Your task to perform on an android device: clear history in the chrome app Image 0: 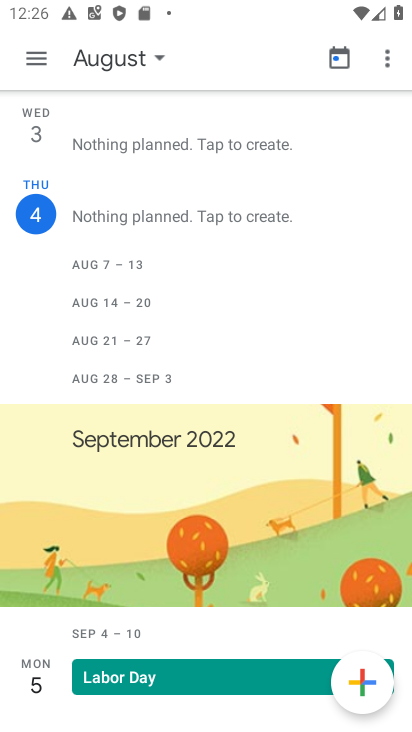
Step 0: press home button
Your task to perform on an android device: clear history in the chrome app Image 1: 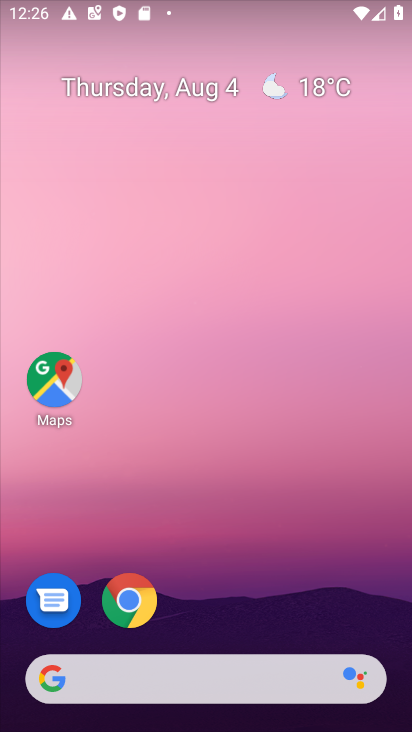
Step 1: click (130, 590)
Your task to perform on an android device: clear history in the chrome app Image 2: 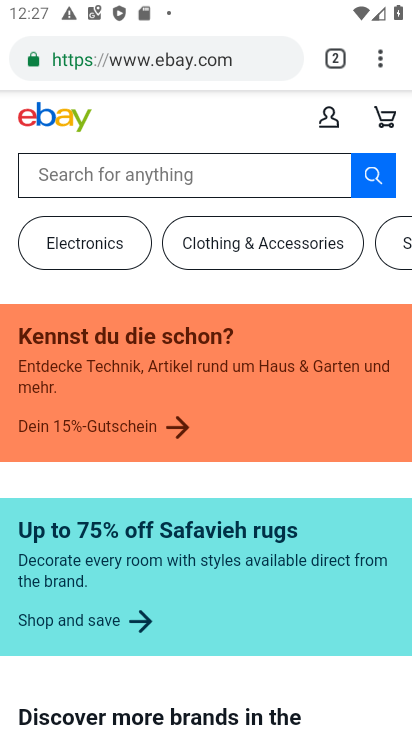
Step 2: drag from (383, 58) to (241, 407)
Your task to perform on an android device: clear history in the chrome app Image 3: 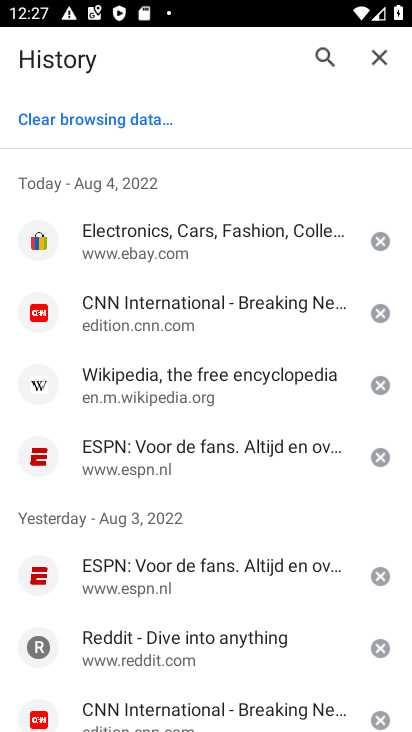
Step 3: click (101, 115)
Your task to perform on an android device: clear history in the chrome app Image 4: 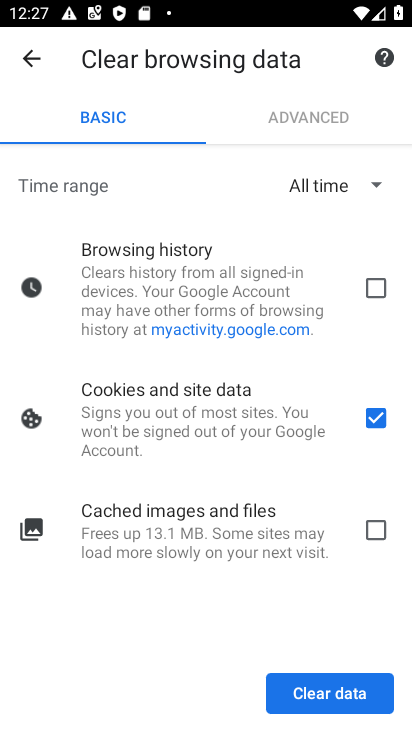
Step 4: click (372, 282)
Your task to perform on an android device: clear history in the chrome app Image 5: 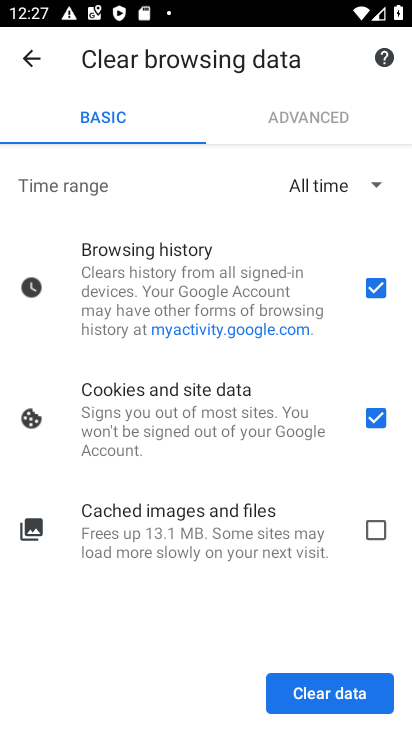
Step 5: click (371, 526)
Your task to perform on an android device: clear history in the chrome app Image 6: 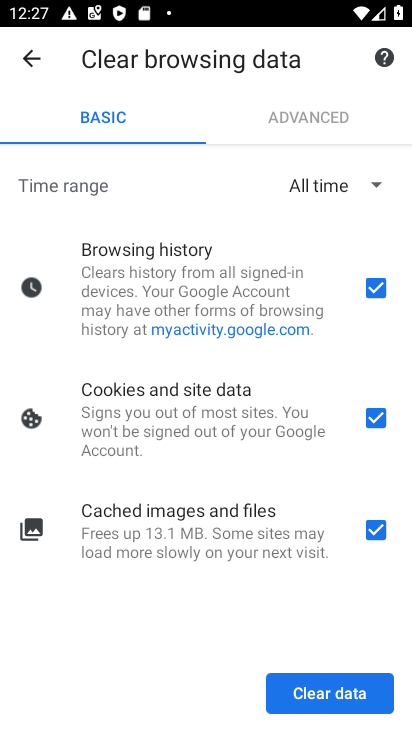
Step 6: click (332, 696)
Your task to perform on an android device: clear history in the chrome app Image 7: 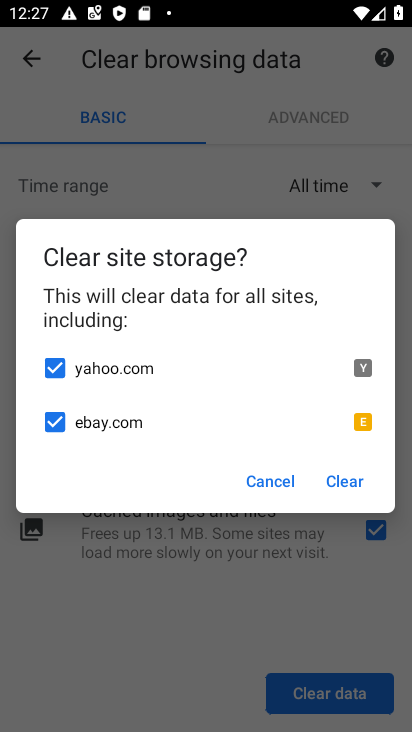
Step 7: click (336, 473)
Your task to perform on an android device: clear history in the chrome app Image 8: 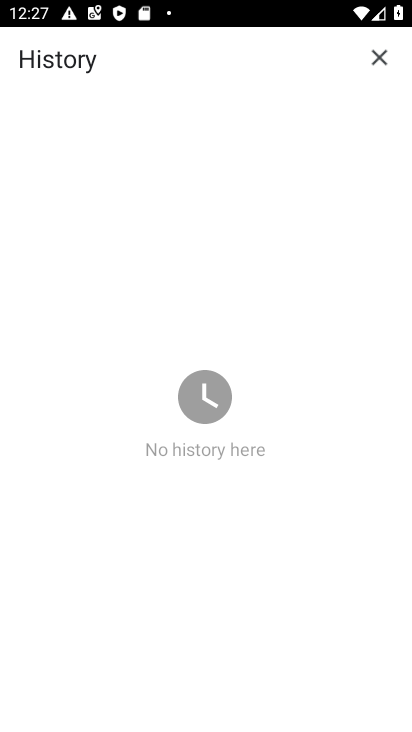
Step 8: task complete